Your task to perform on an android device: Open the Play Movies app and select the watchlist tab. Image 0: 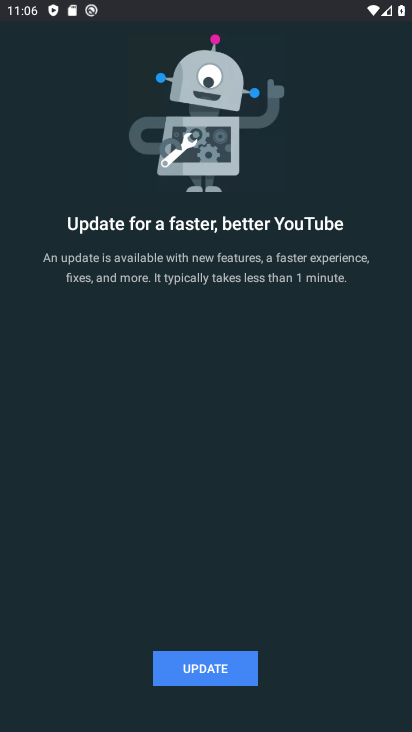
Step 0: press home button
Your task to perform on an android device: Open the Play Movies app and select the watchlist tab. Image 1: 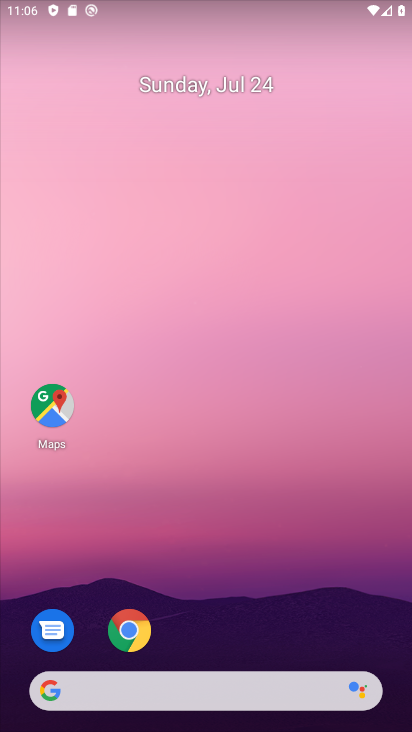
Step 1: drag from (122, 620) to (201, 616)
Your task to perform on an android device: Open the Play Movies app and select the watchlist tab. Image 2: 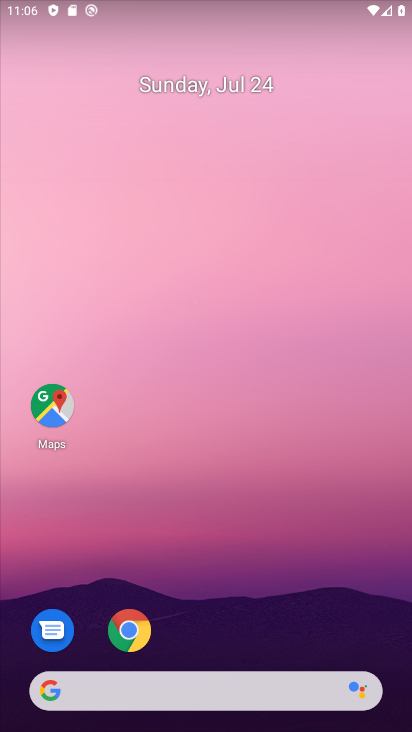
Step 2: drag from (201, 580) to (176, 219)
Your task to perform on an android device: Open the Play Movies app and select the watchlist tab. Image 3: 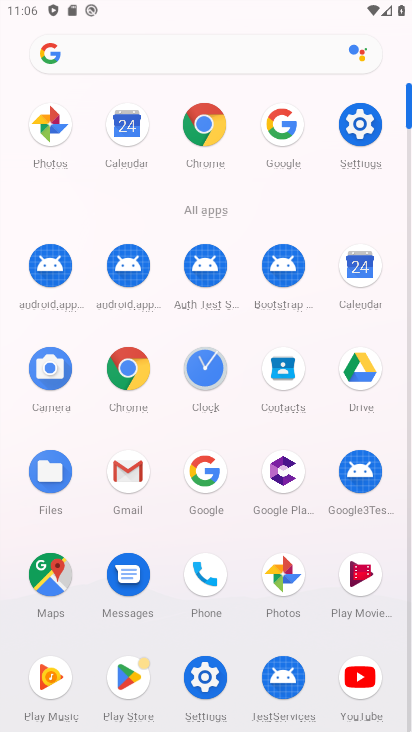
Step 3: click (350, 585)
Your task to perform on an android device: Open the Play Movies app and select the watchlist tab. Image 4: 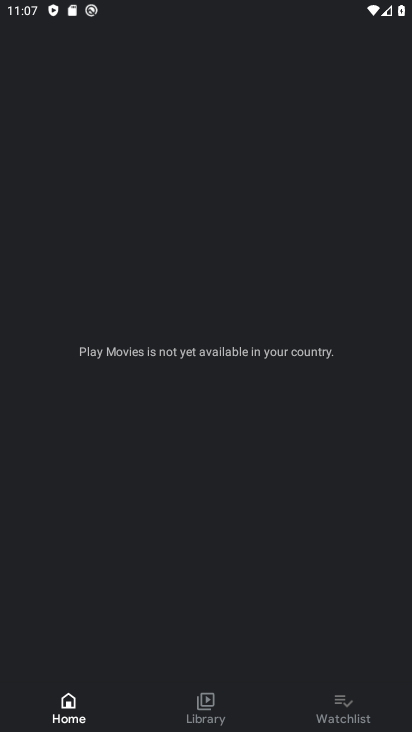
Step 4: click (351, 713)
Your task to perform on an android device: Open the Play Movies app and select the watchlist tab. Image 5: 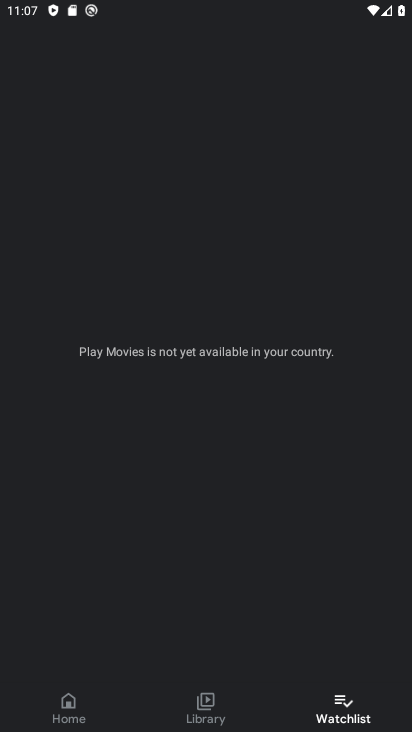
Step 5: task complete